Your task to perform on an android device: Add "razer naga" to the cart on newegg, then select checkout. Image 0: 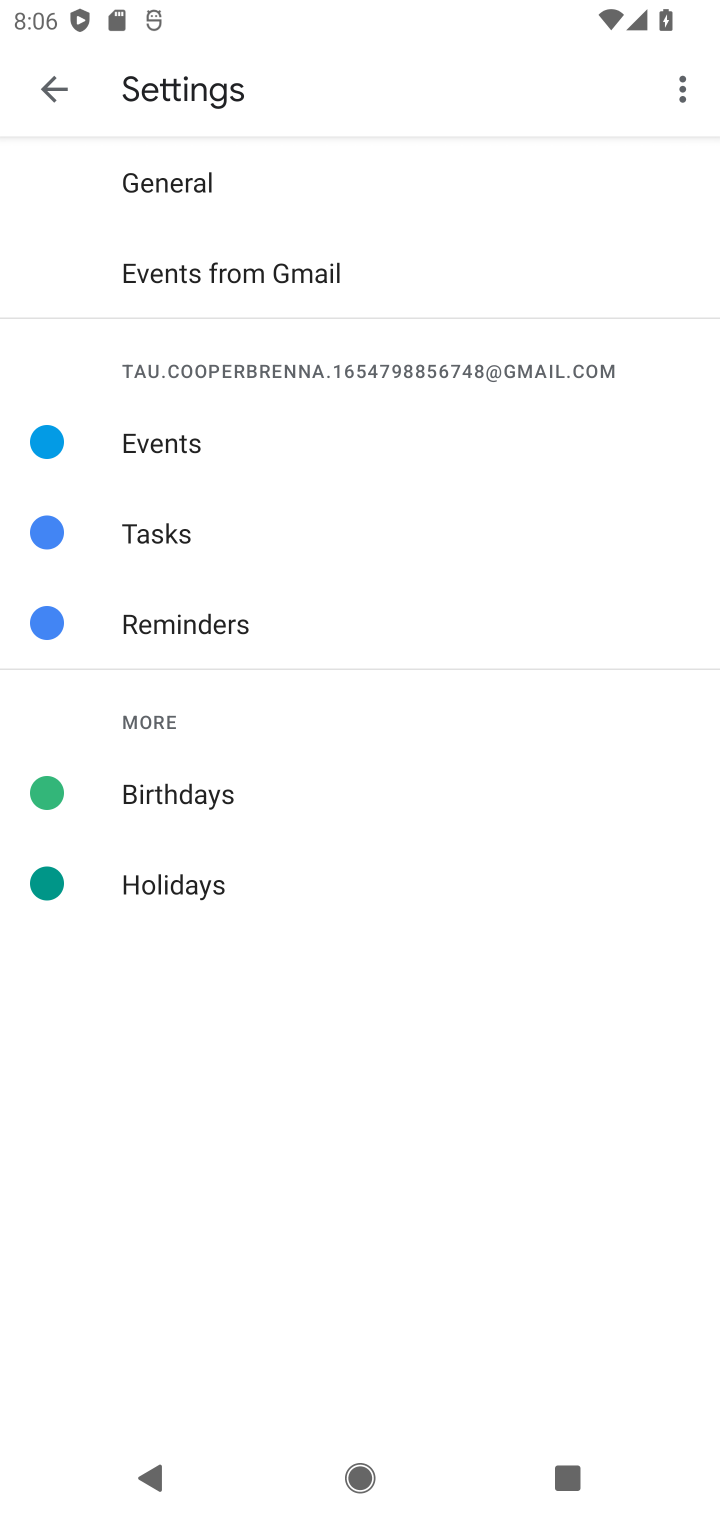
Step 0: press home button
Your task to perform on an android device: Add "razer naga" to the cart on newegg, then select checkout. Image 1: 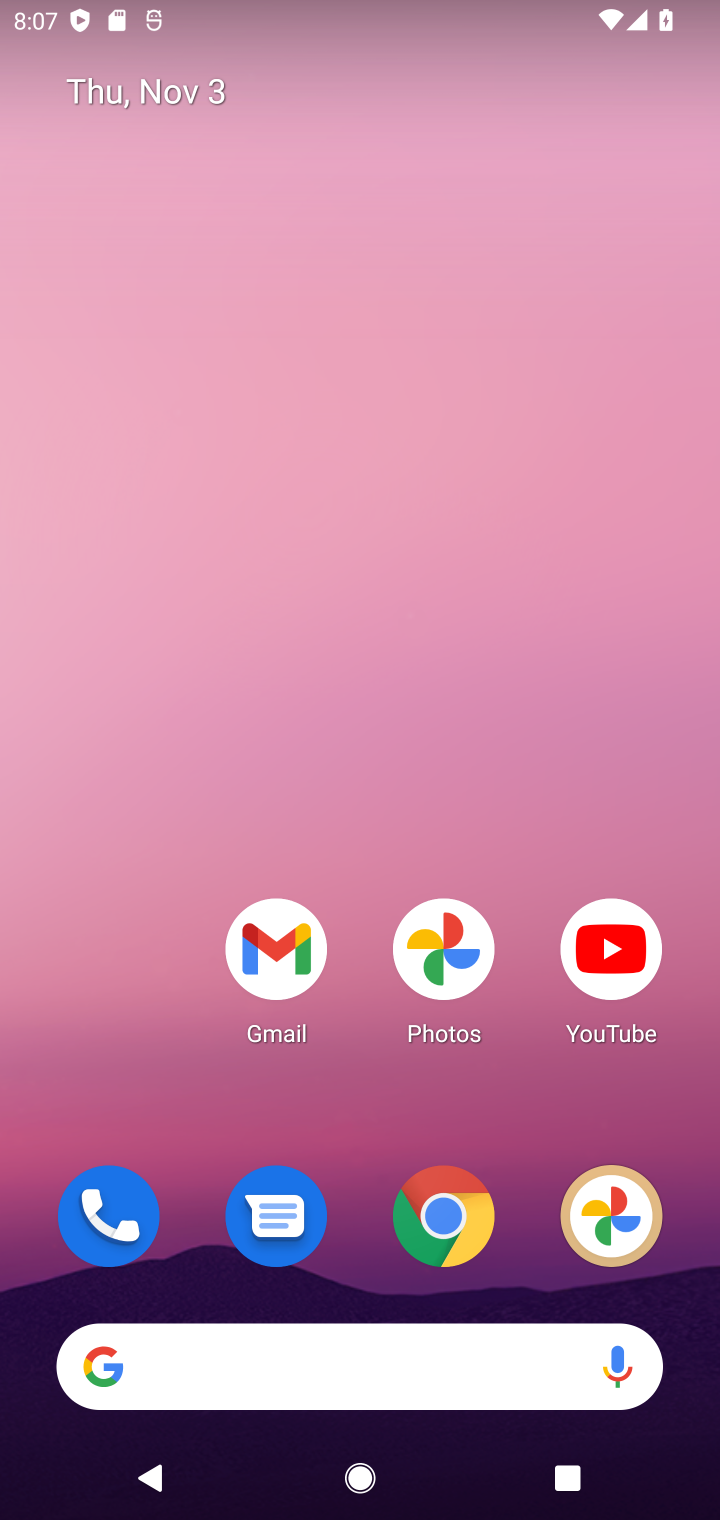
Step 1: click (443, 1211)
Your task to perform on an android device: Add "razer naga" to the cart on newegg, then select checkout. Image 2: 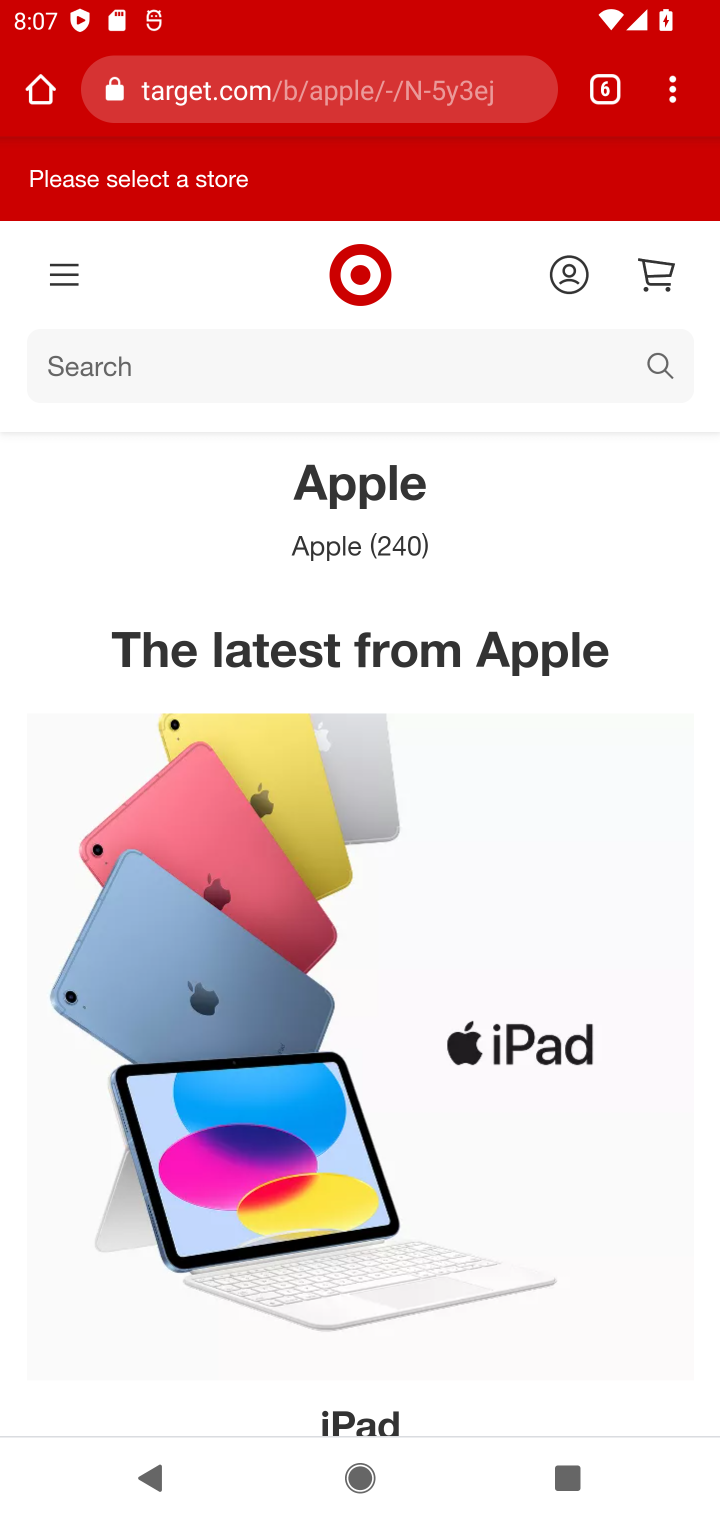
Step 2: click (612, 93)
Your task to perform on an android device: Add "razer naga" to the cart on newegg, then select checkout. Image 3: 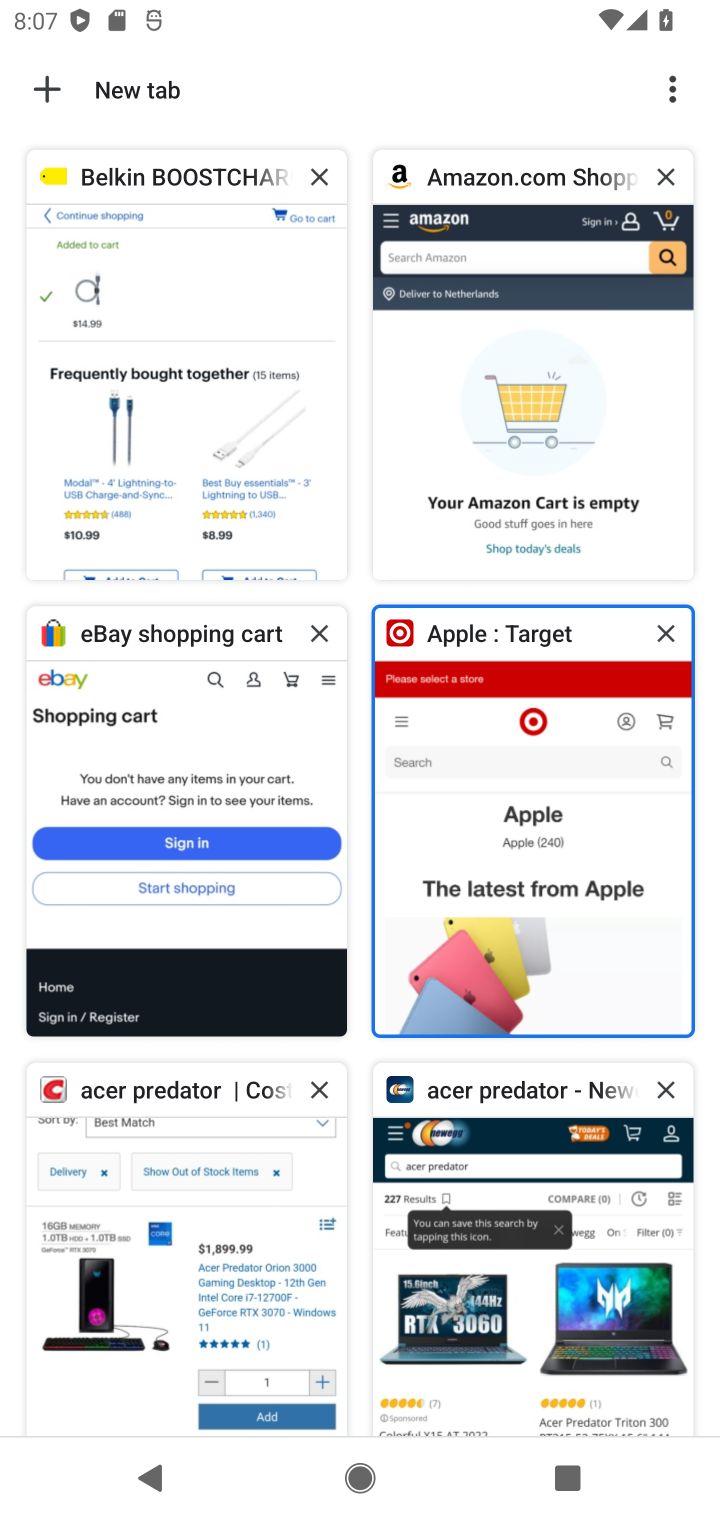
Step 3: drag from (500, 1085) to (479, 829)
Your task to perform on an android device: Add "razer naga" to the cart on newegg, then select checkout. Image 4: 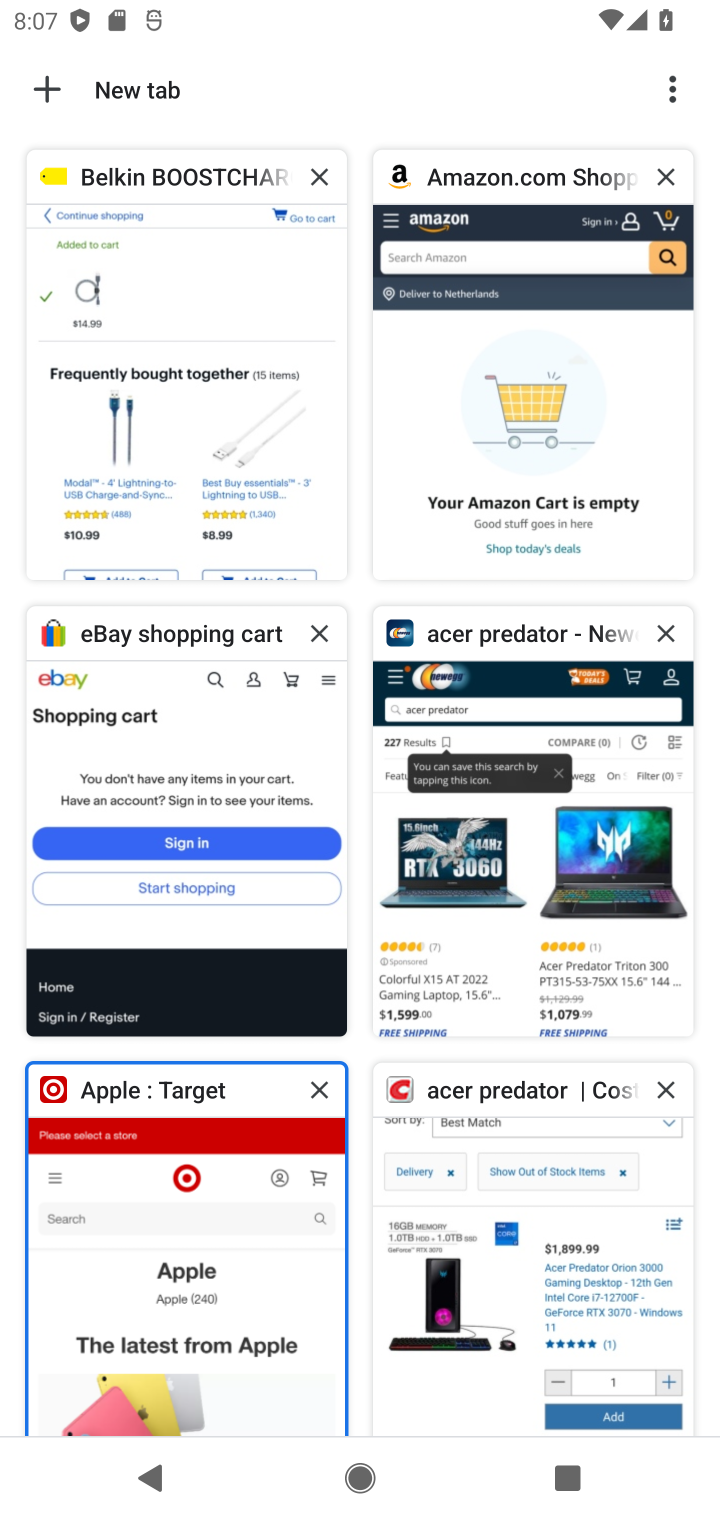
Step 4: click (479, 829)
Your task to perform on an android device: Add "razer naga" to the cart on newegg, then select checkout. Image 5: 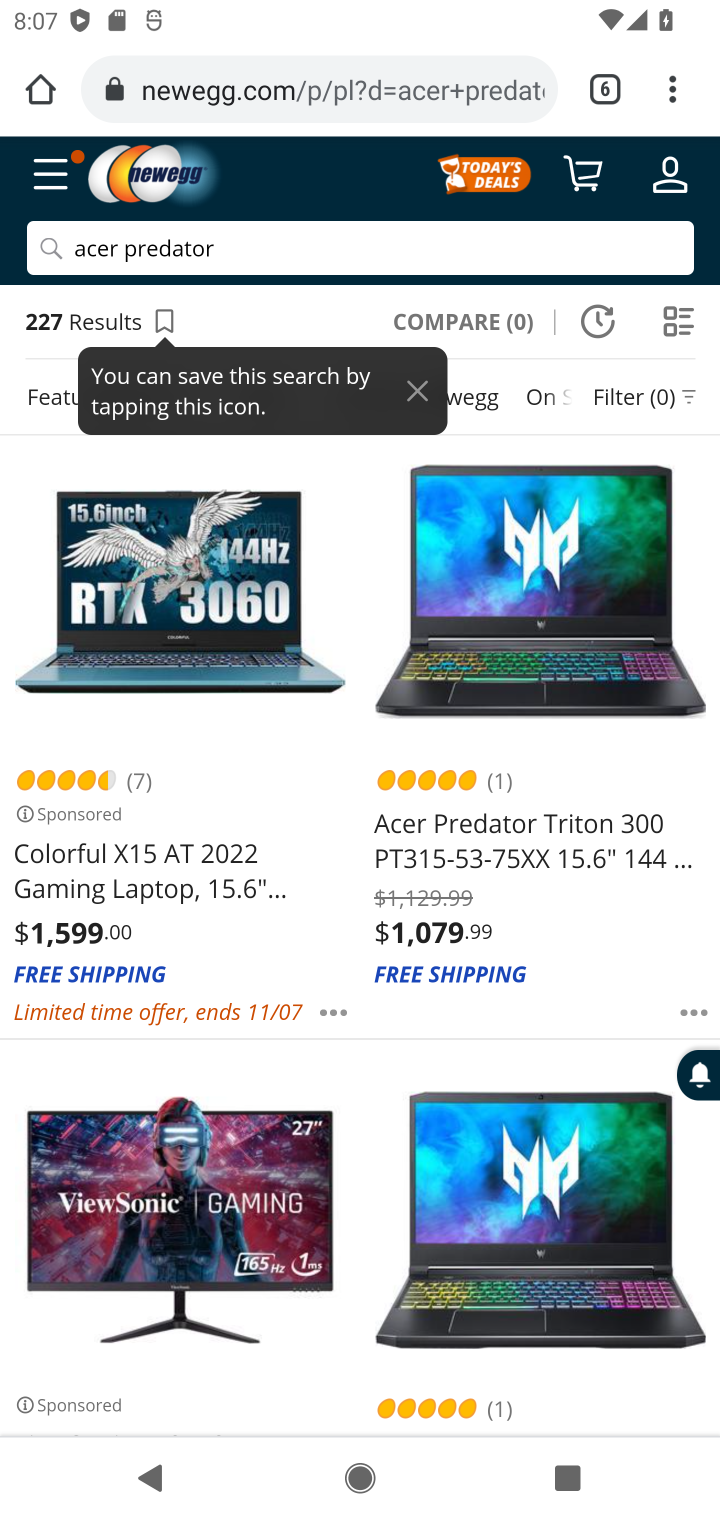
Step 5: click (516, 267)
Your task to perform on an android device: Add "razer naga" to the cart on newegg, then select checkout. Image 6: 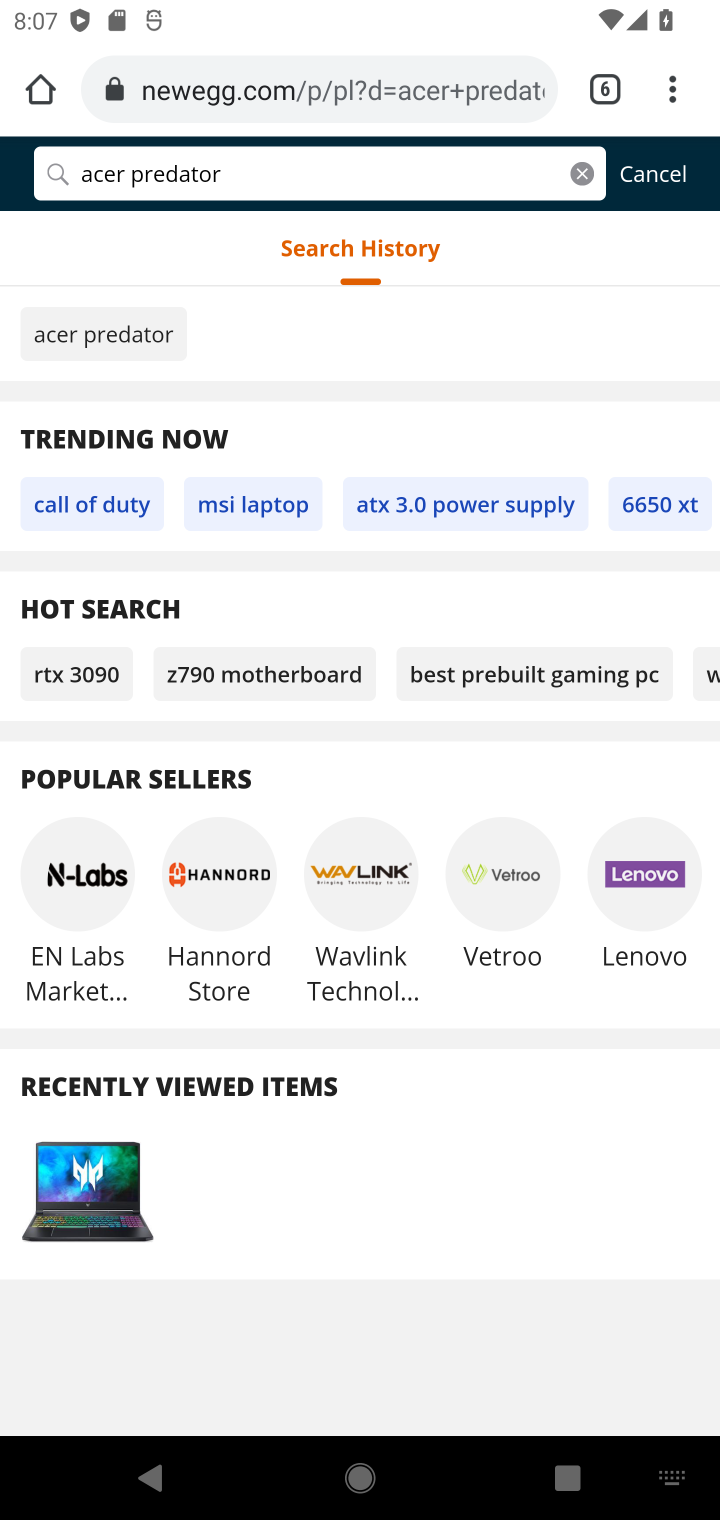
Step 6: click (583, 179)
Your task to perform on an android device: Add "razer naga" to the cart on newegg, then select checkout. Image 7: 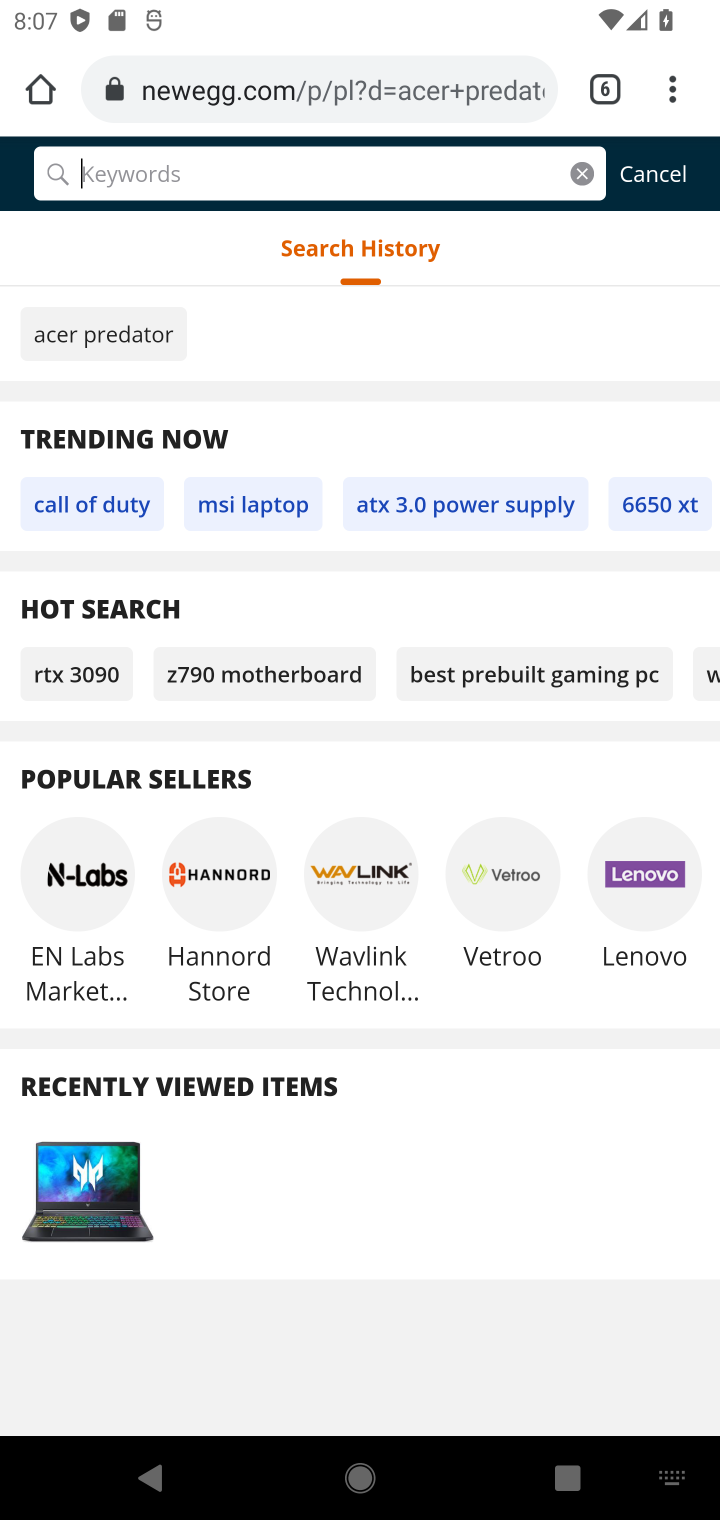
Step 7: type "razer naga"
Your task to perform on an android device: Add "razer naga" to the cart on newegg, then select checkout. Image 8: 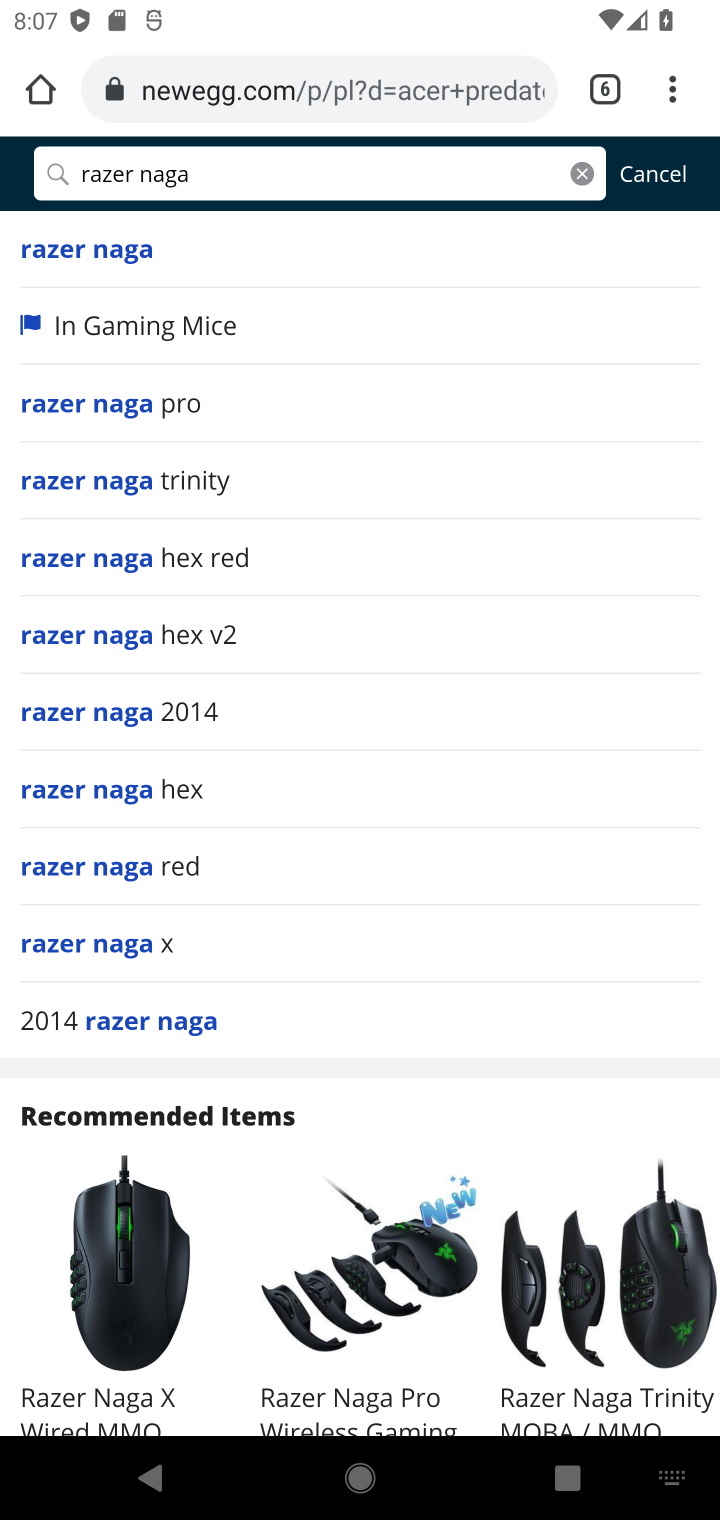
Step 8: press enter
Your task to perform on an android device: Add "razer naga" to the cart on newegg, then select checkout. Image 9: 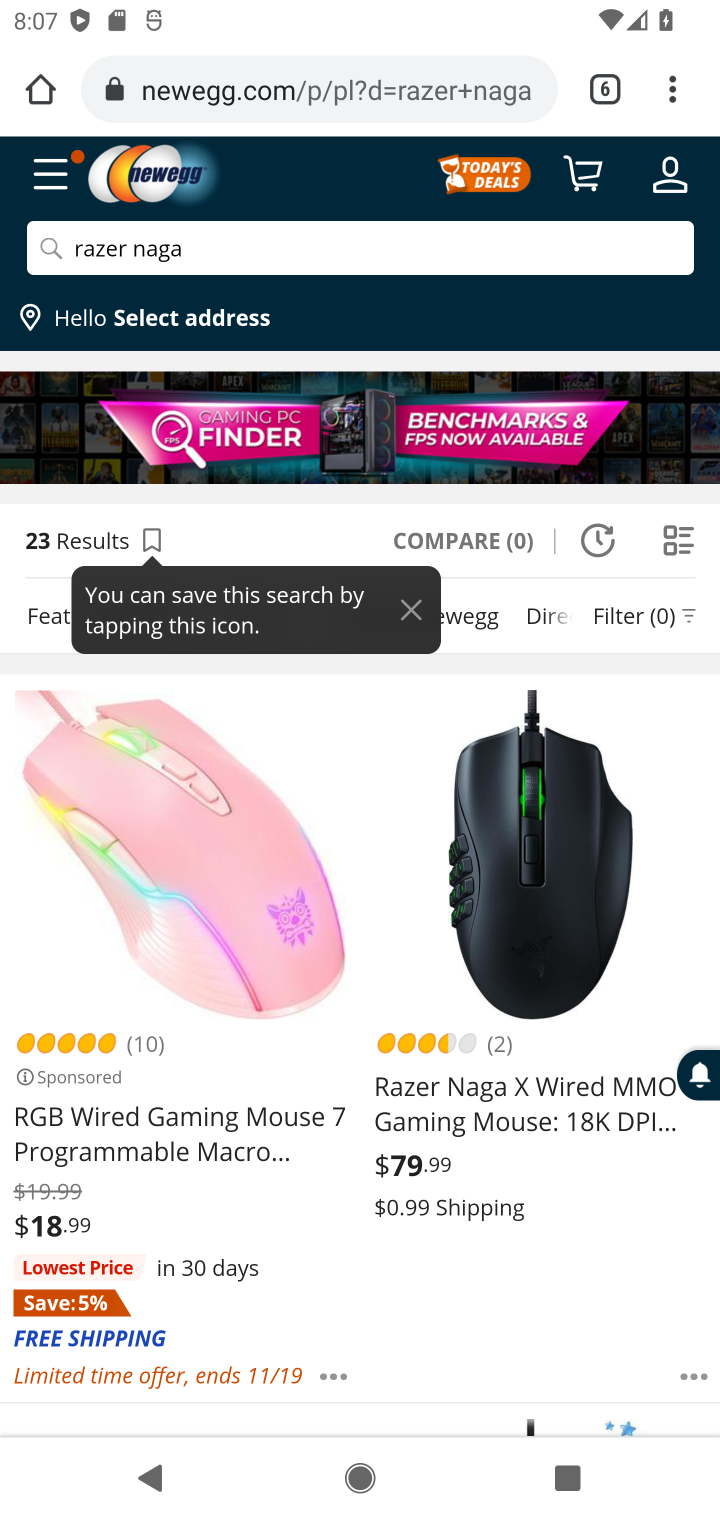
Step 9: click (547, 1120)
Your task to perform on an android device: Add "razer naga" to the cart on newegg, then select checkout. Image 10: 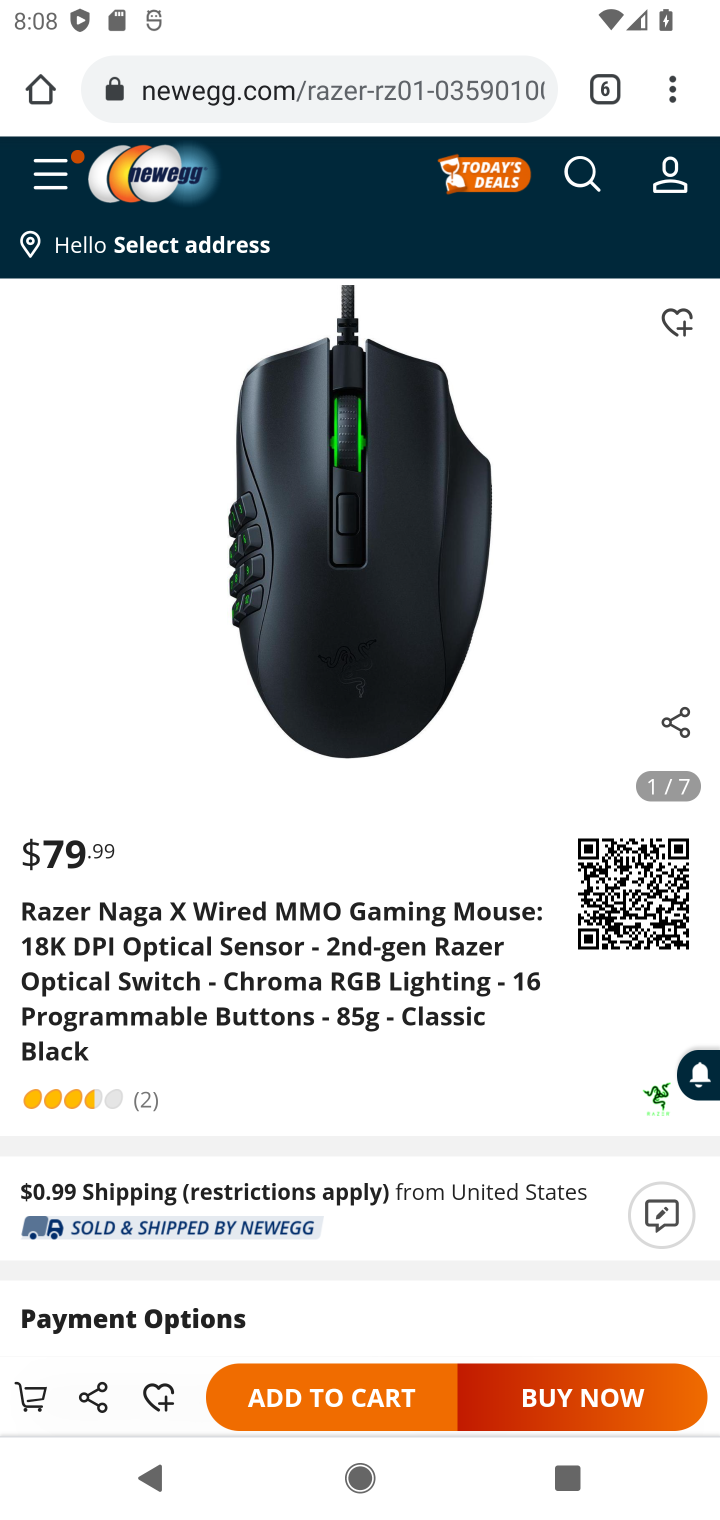
Step 10: click (365, 1395)
Your task to perform on an android device: Add "razer naga" to the cart on newegg, then select checkout. Image 11: 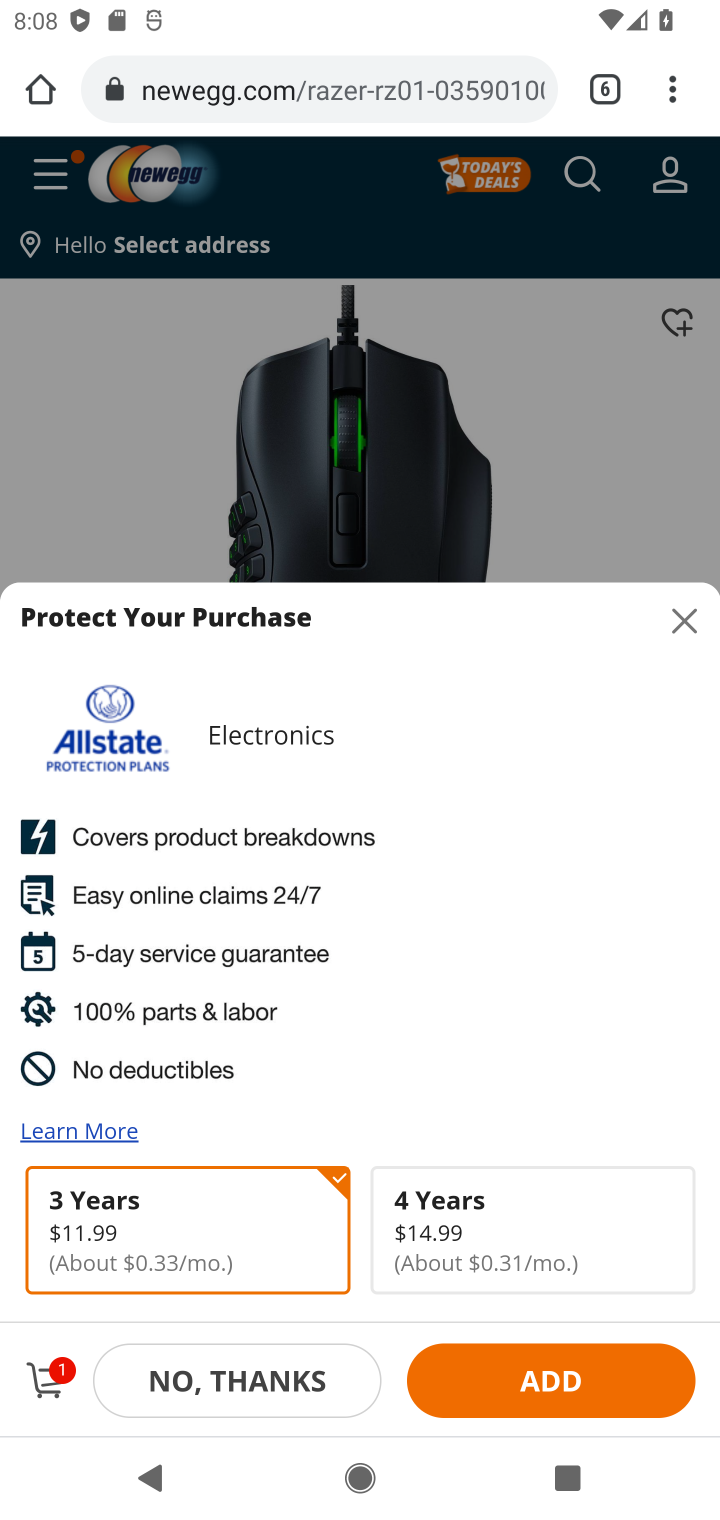
Step 11: click (40, 1371)
Your task to perform on an android device: Add "razer naga" to the cart on newegg, then select checkout. Image 12: 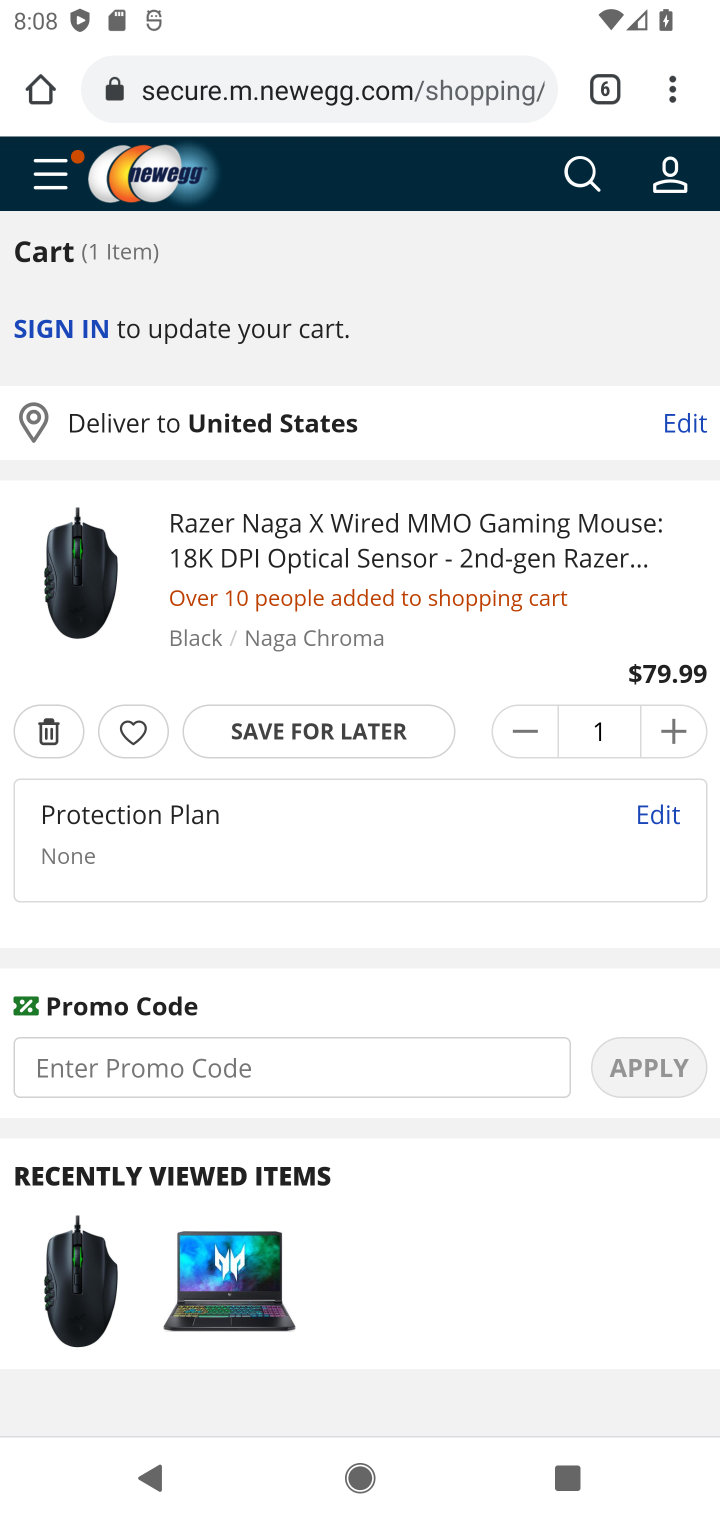
Step 12: drag from (419, 1036) to (347, 419)
Your task to perform on an android device: Add "razer naga" to the cart on newegg, then select checkout. Image 13: 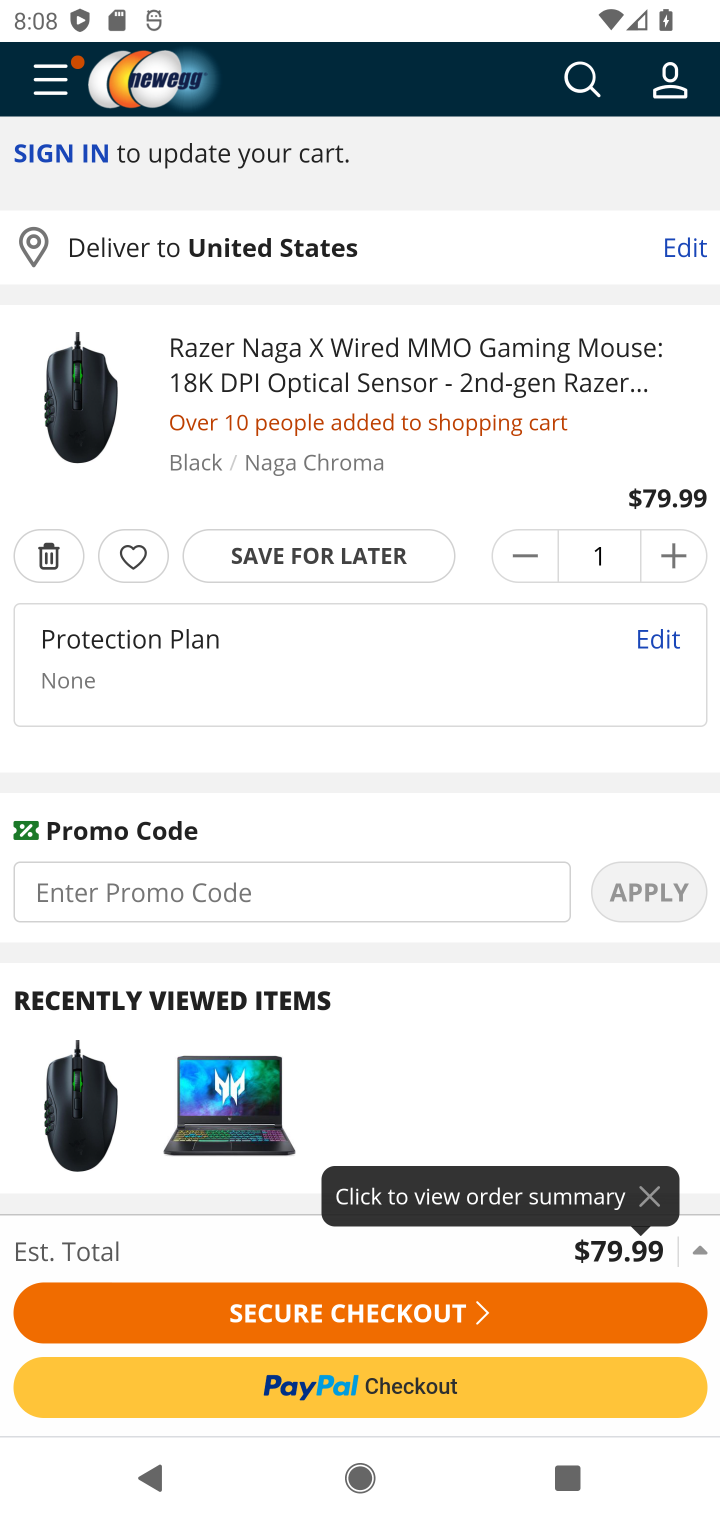
Step 13: click (311, 1320)
Your task to perform on an android device: Add "razer naga" to the cart on newegg, then select checkout. Image 14: 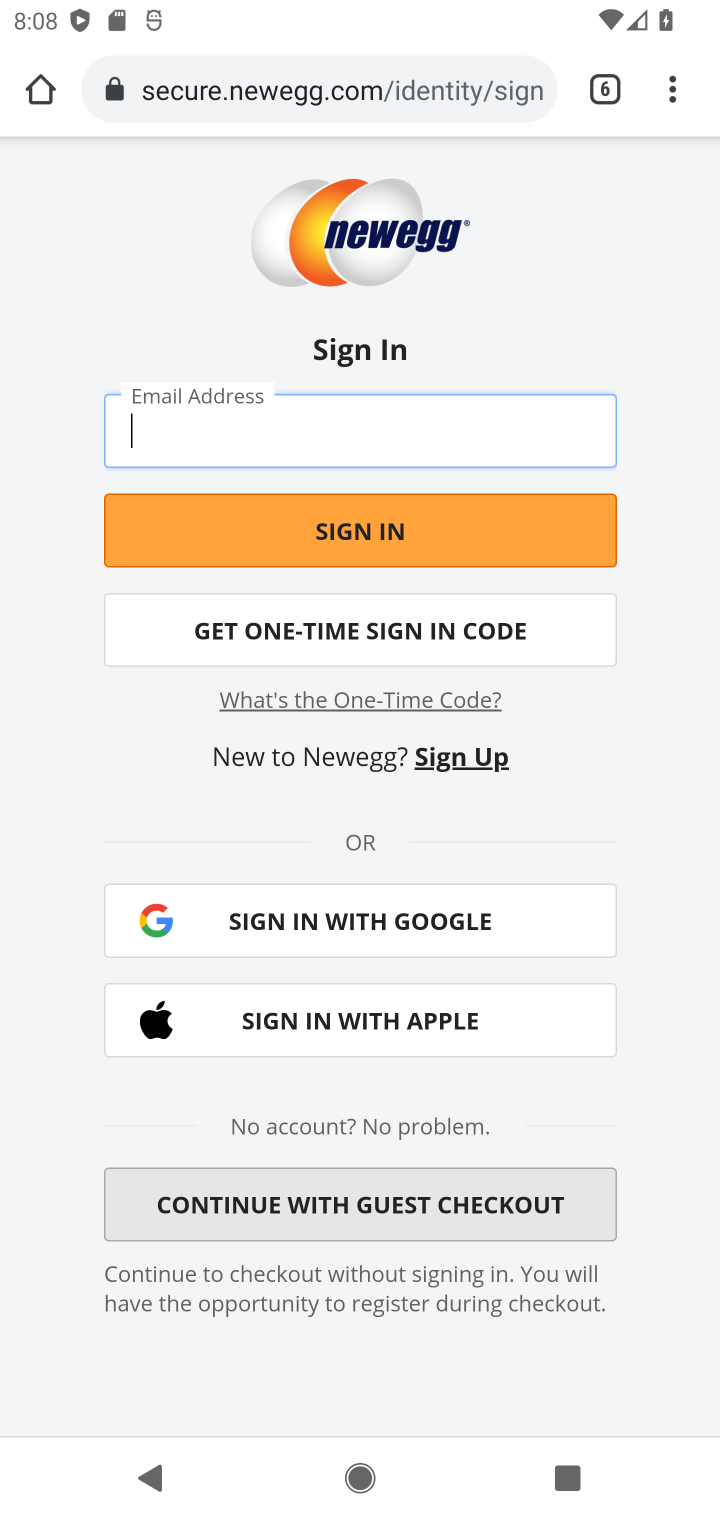
Step 14: task complete